Your task to perform on an android device: choose inbox layout in the gmail app Image 0: 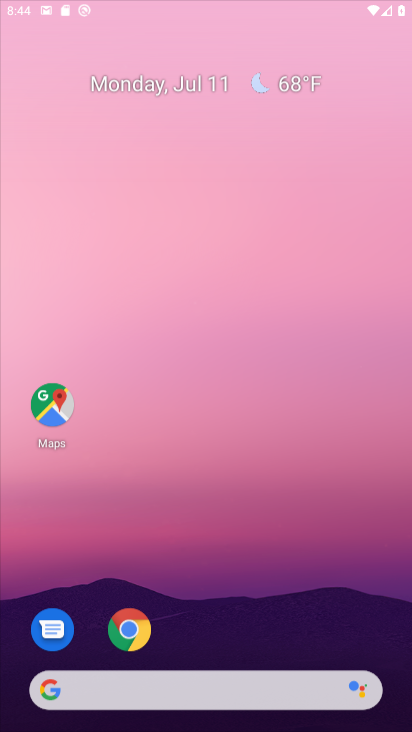
Step 0: drag from (201, 28) to (128, 71)
Your task to perform on an android device: choose inbox layout in the gmail app Image 1: 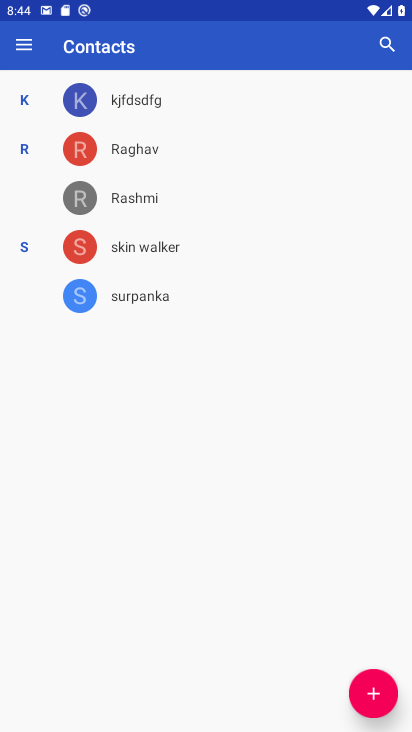
Step 1: press home button
Your task to perform on an android device: choose inbox layout in the gmail app Image 2: 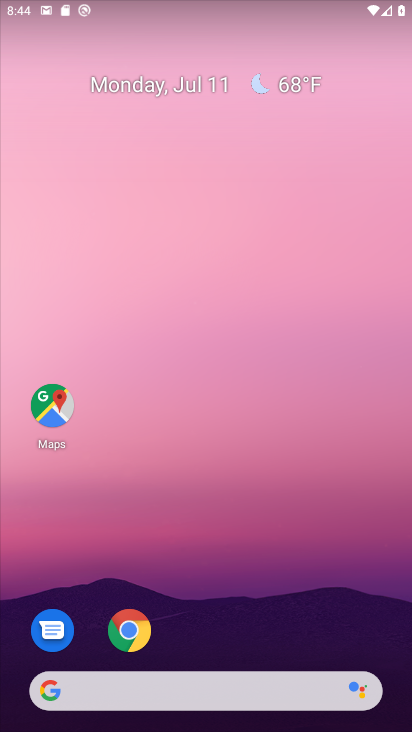
Step 2: drag from (181, 645) to (182, 28)
Your task to perform on an android device: choose inbox layout in the gmail app Image 3: 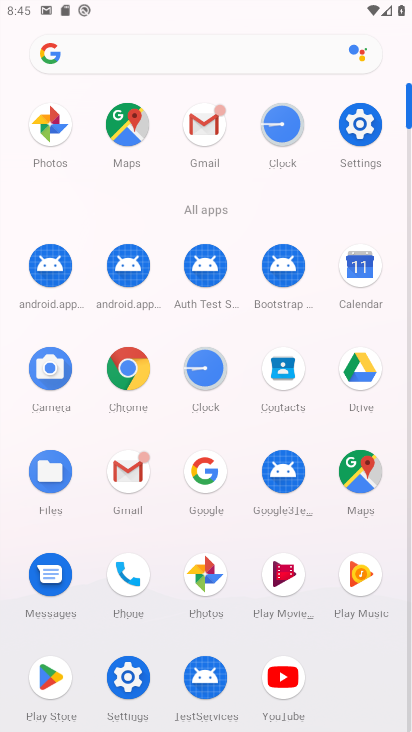
Step 3: click (126, 482)
Your task to perform on an android device: choose inbox layout in the gmail app Image 4: 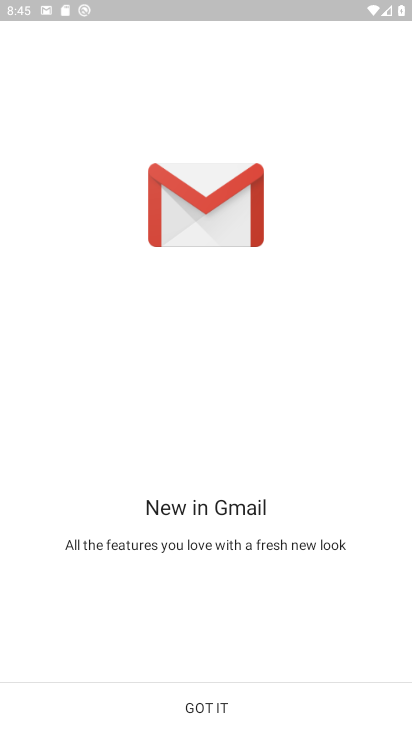
Step 4: click (262, 713)
Your task to perform on an android device: choose inbox layout in the gmail app Image 5: 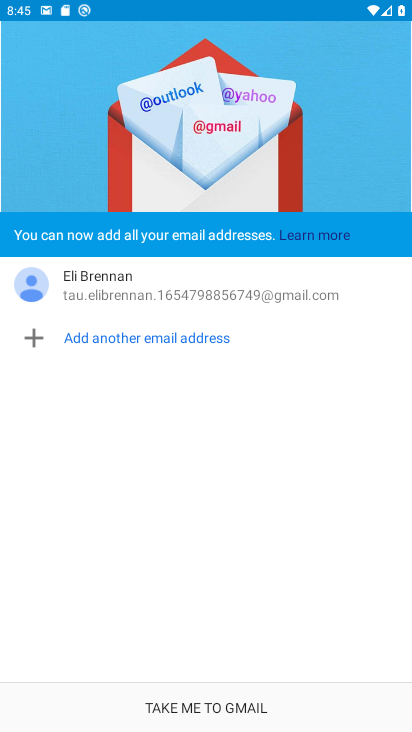
Step 5: click (265, 707)
Your task to perform on an android device: choose inbox layout in the gmail app Image 6: 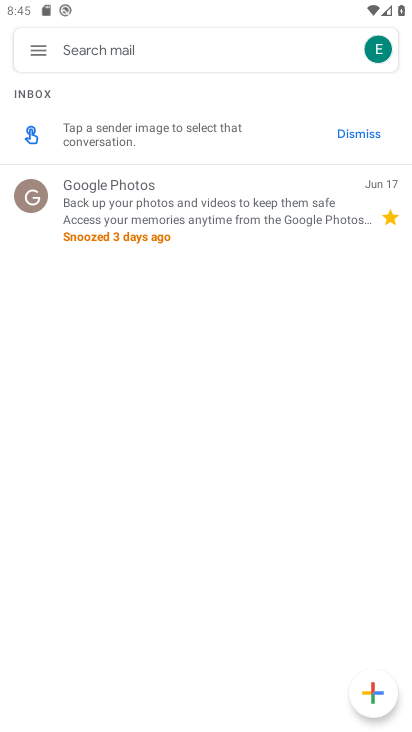
Step 6: click (38, 53)
Your task to perform on an android device: choose inbox layout in the gmail app Image 7: 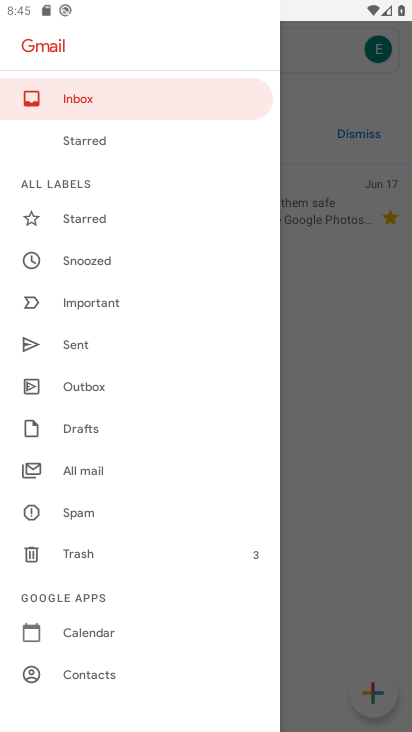
Step 7: drag from (106, 587) to (148, 203)
Your task to perform on an android device: choose inbox layout in the gmail app Image 8: 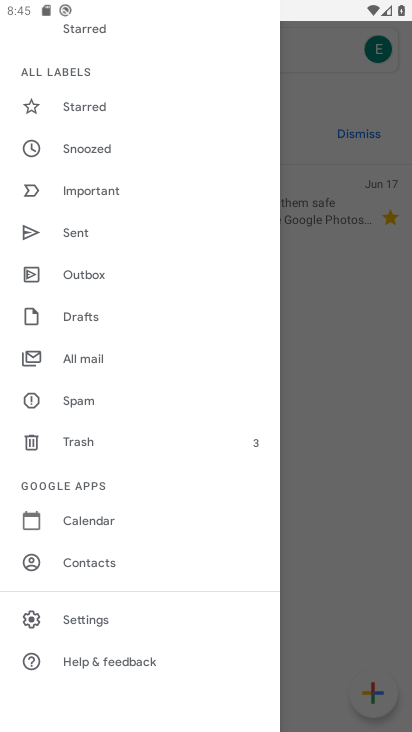
Step 8: click (98, 621)
Your task to perform on an android device: choose inbox layout in the gmail app Image 9: 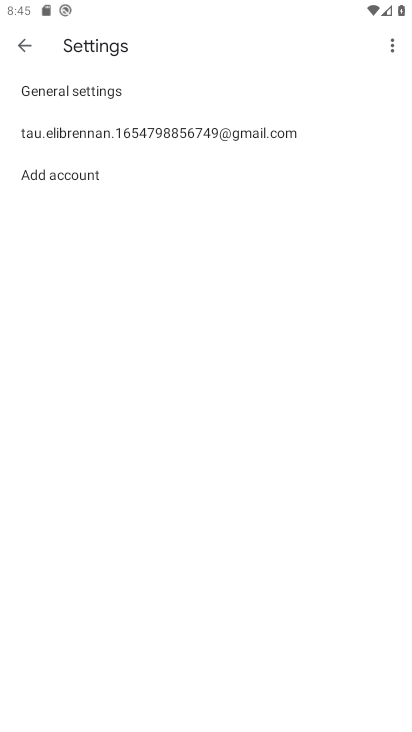
Step 9: click (122, 134)
Your task to perform on an android device: choose inbox layout in the gmail app Image 10: 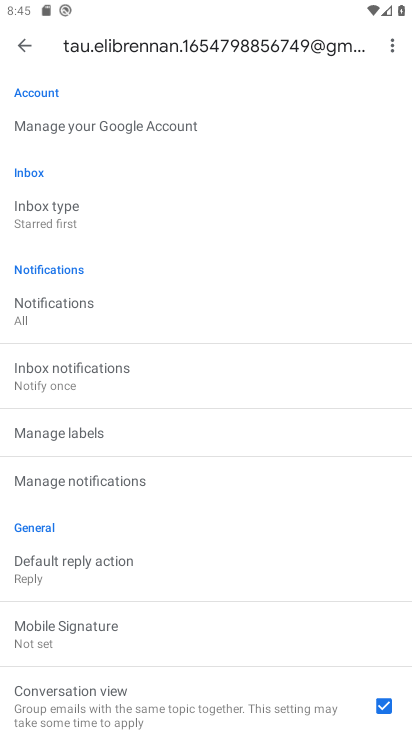
Step 10: click (68, 214)
Your task to perform on an android device: choose inbox layout in the gmail app Image 11: 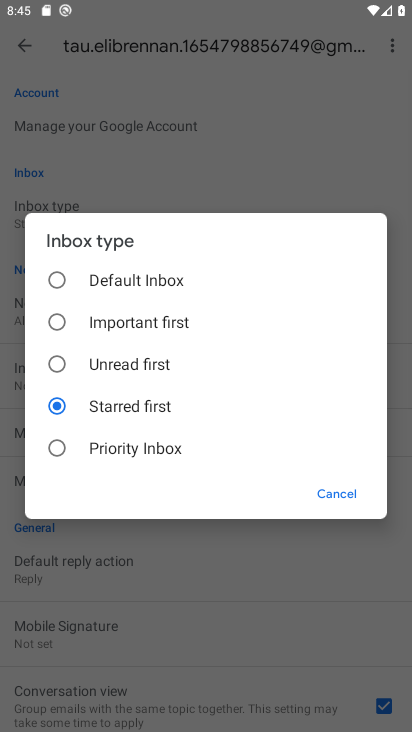
Step 11: click (132, 286)
Your task to perform on an android device: choose inbox layout in the gmail app Image 12: 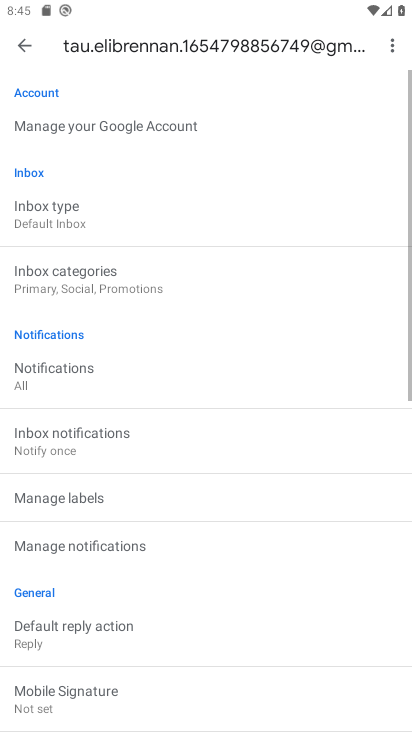
Step 12: task complete